Your task to perform on an android device: When is my next appointment? Image 0: 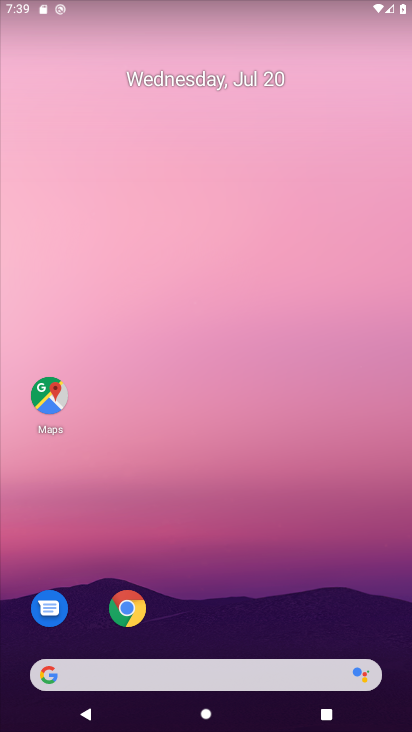
Step 0: drag from (277, 634) to (221, 40)
Your task to perform on an android device: When is my next appointment? Image 1: 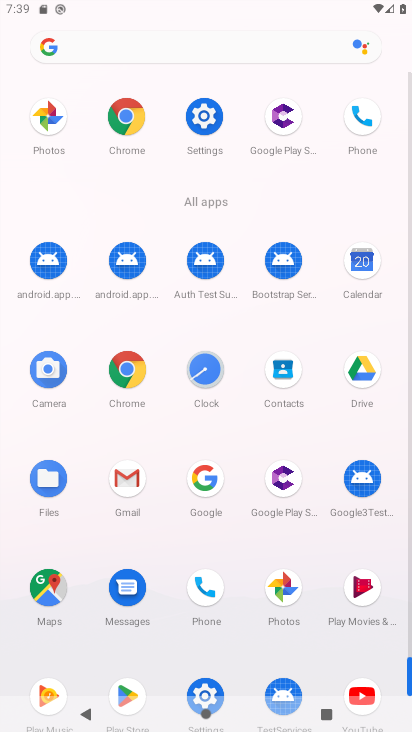
Step 1: click (366, 261)
Your task to perform on an android device: When is my next appointment? Image 2: 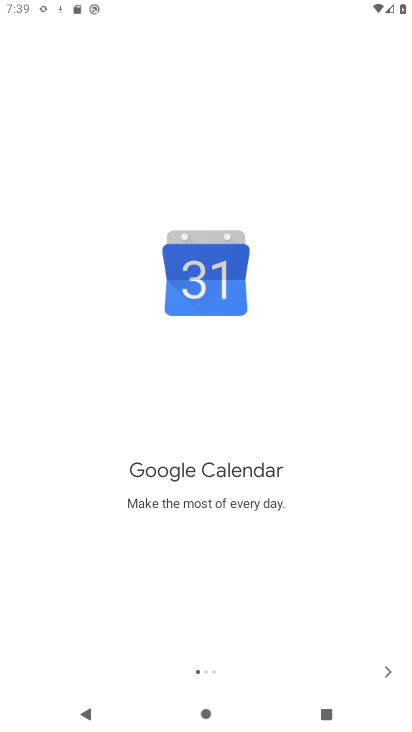
Step 2: click (385, 656)
Your task to perform on an android device: When is my next appointment? Image 3: 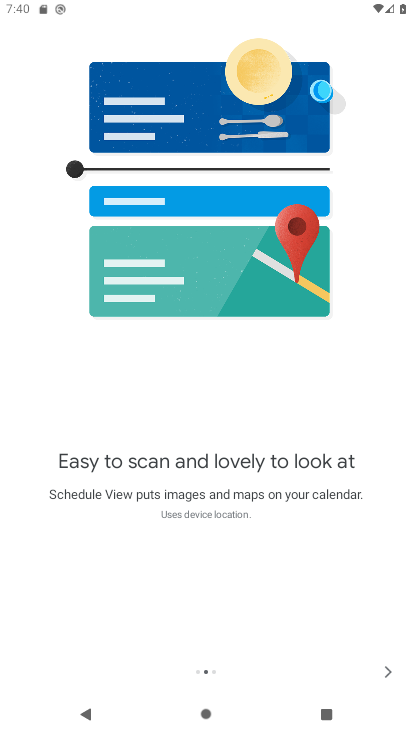
Step 3: click (376, 665)
Your task to perform on an android device: When is my next appointment? Image 4: 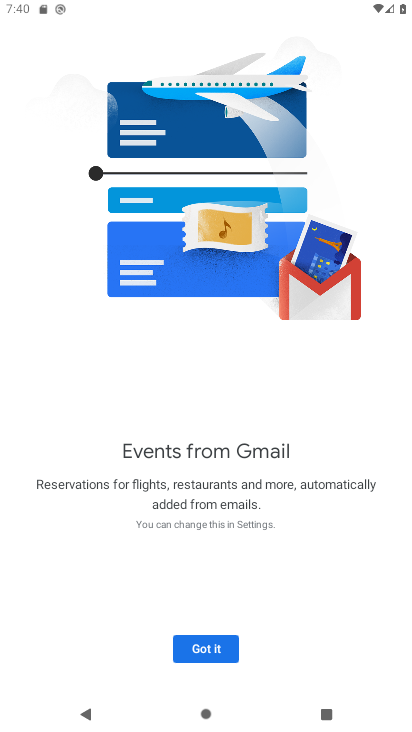
Step 4: click (211, 653)
Your task to perform on an android device: When is my next appointment? Image 5: 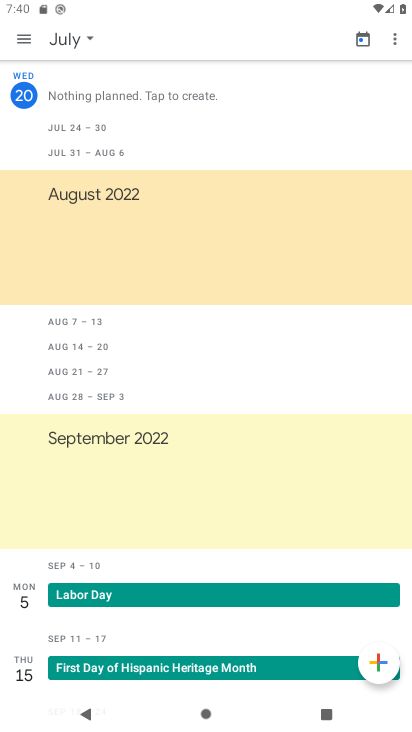
Step 5: click (28, 30)
Your task to perform on an android device: When is my next appointment? Image 6: 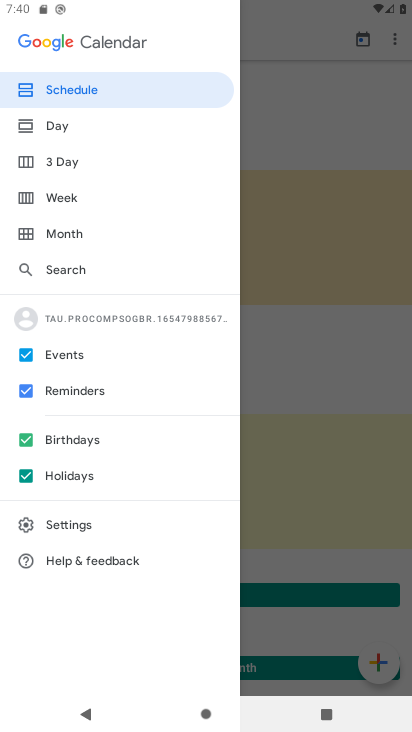
Step 6: click (52, 235)
Your task to perform on an android device: When is my next appointment? Image 7: 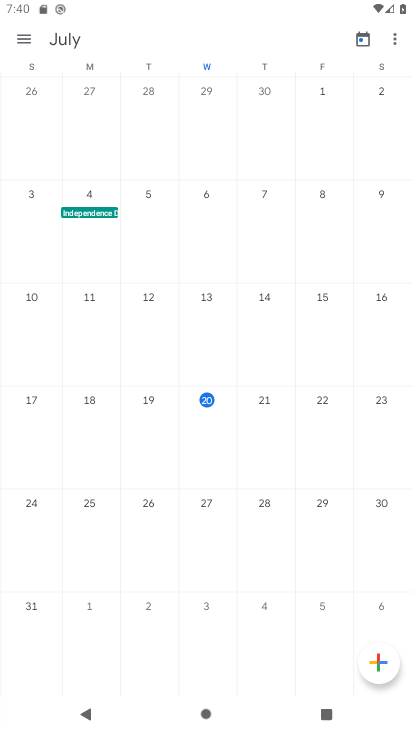
Step 7: click (253, 415)
Your task to perform on an android device: When is my next appointment? Image 8: 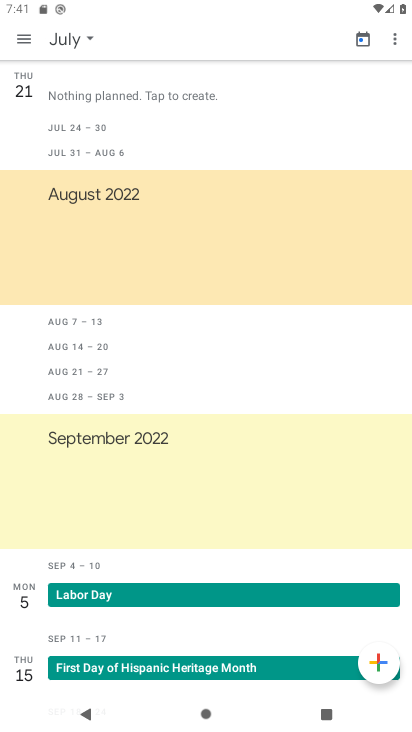
Step 8: task complete